Your task to perform on an android device: turn vacation reply on in the gmail app Image 0: 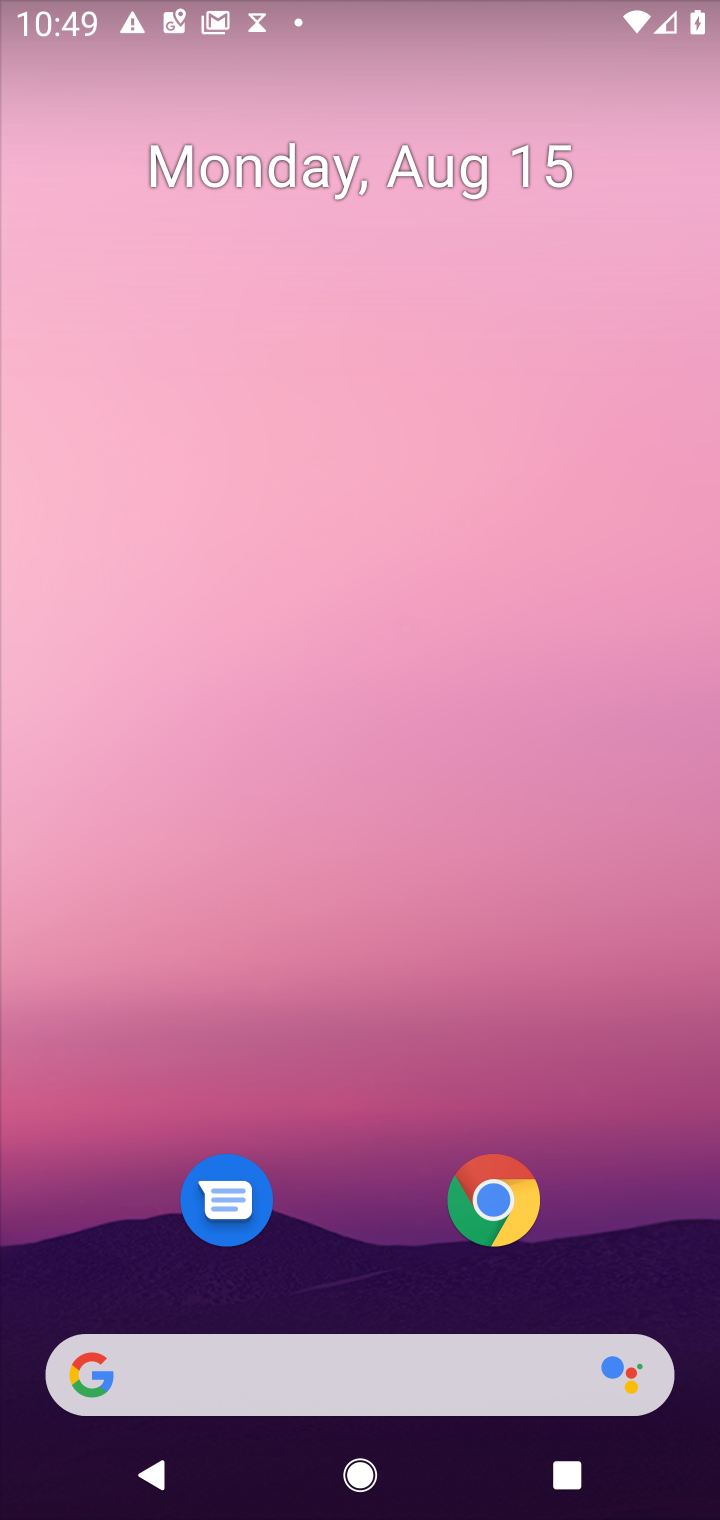
Step 0: drag from (364, 978) to (367, 213)
Your task to perform on an android device: turn vacation reply on in the gmail app Image 1: 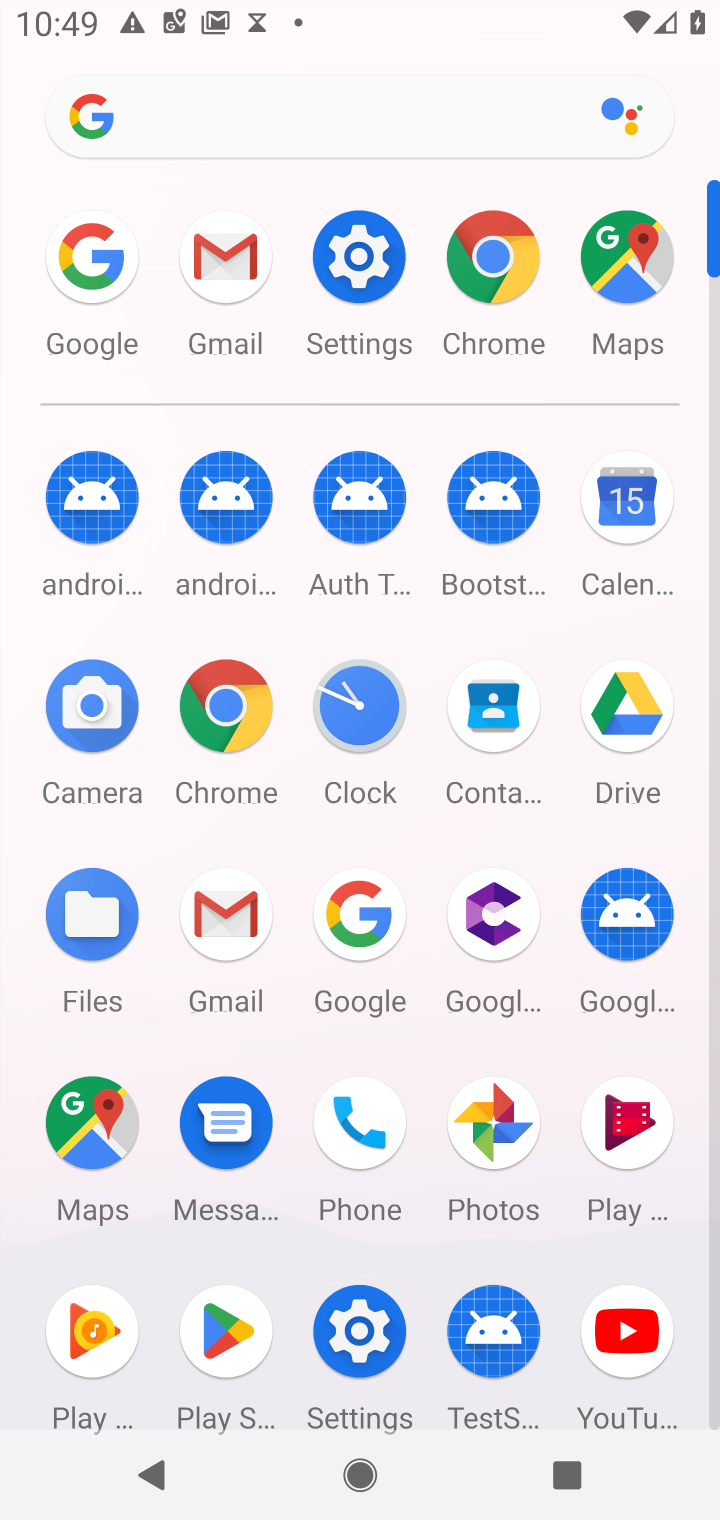
Step 1: click (255, 234)
Your task to perform on an android device: turn vacation reply on in the gmail app Image 2: 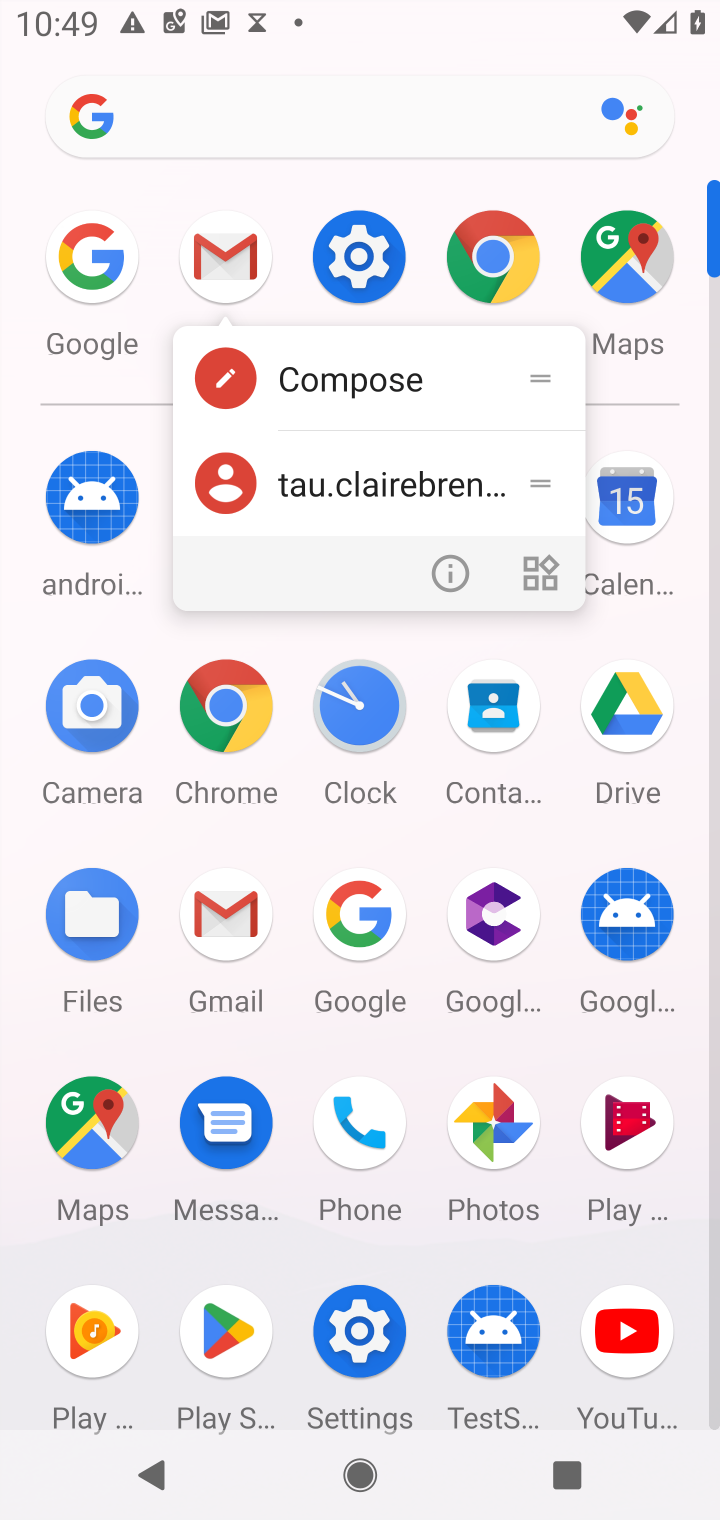
Step 2: click (206, 288)
Your task to perform on an android device: turn vacation reply on in the gmail app Image 3: 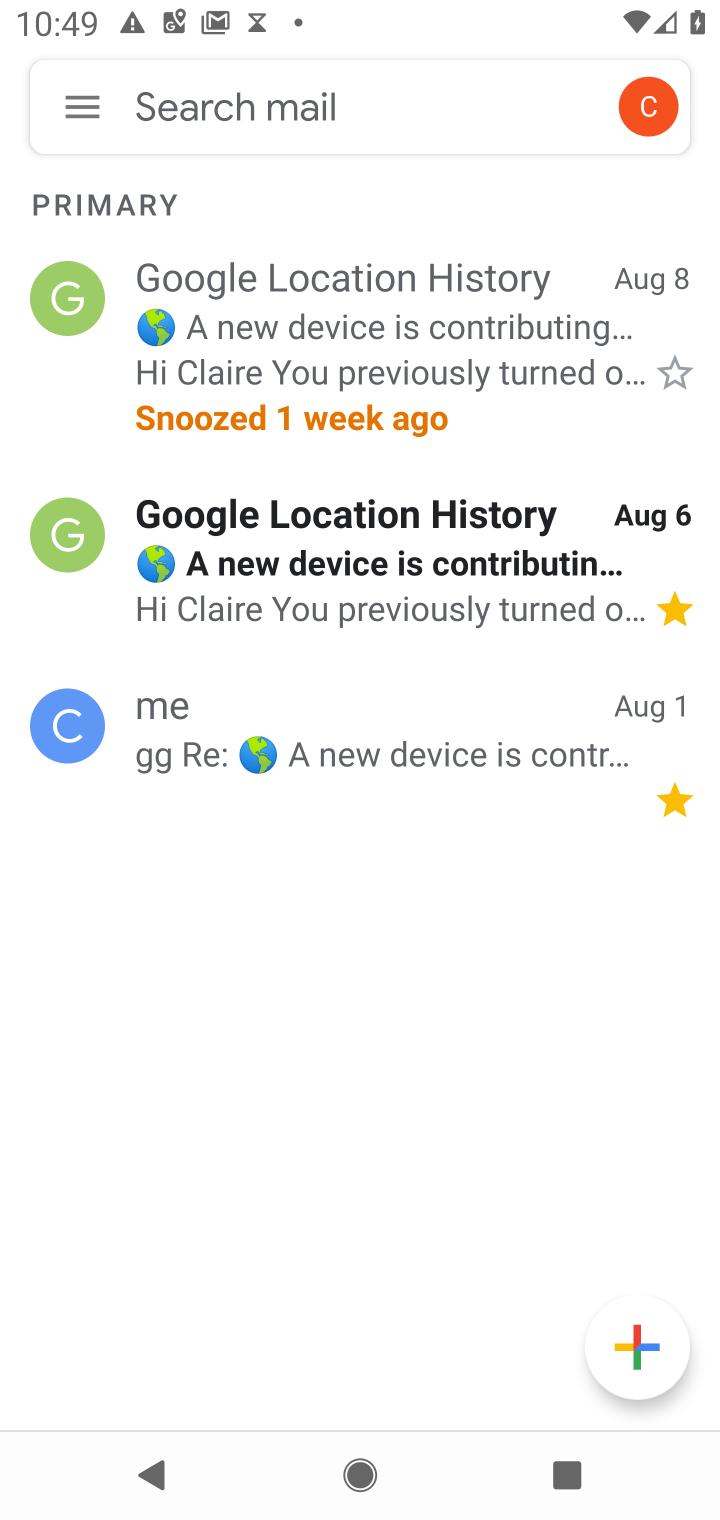
Step 3: click (97, 110)
Your task to perform on an android device: turn vacation reply on in the gmail app Image 4: 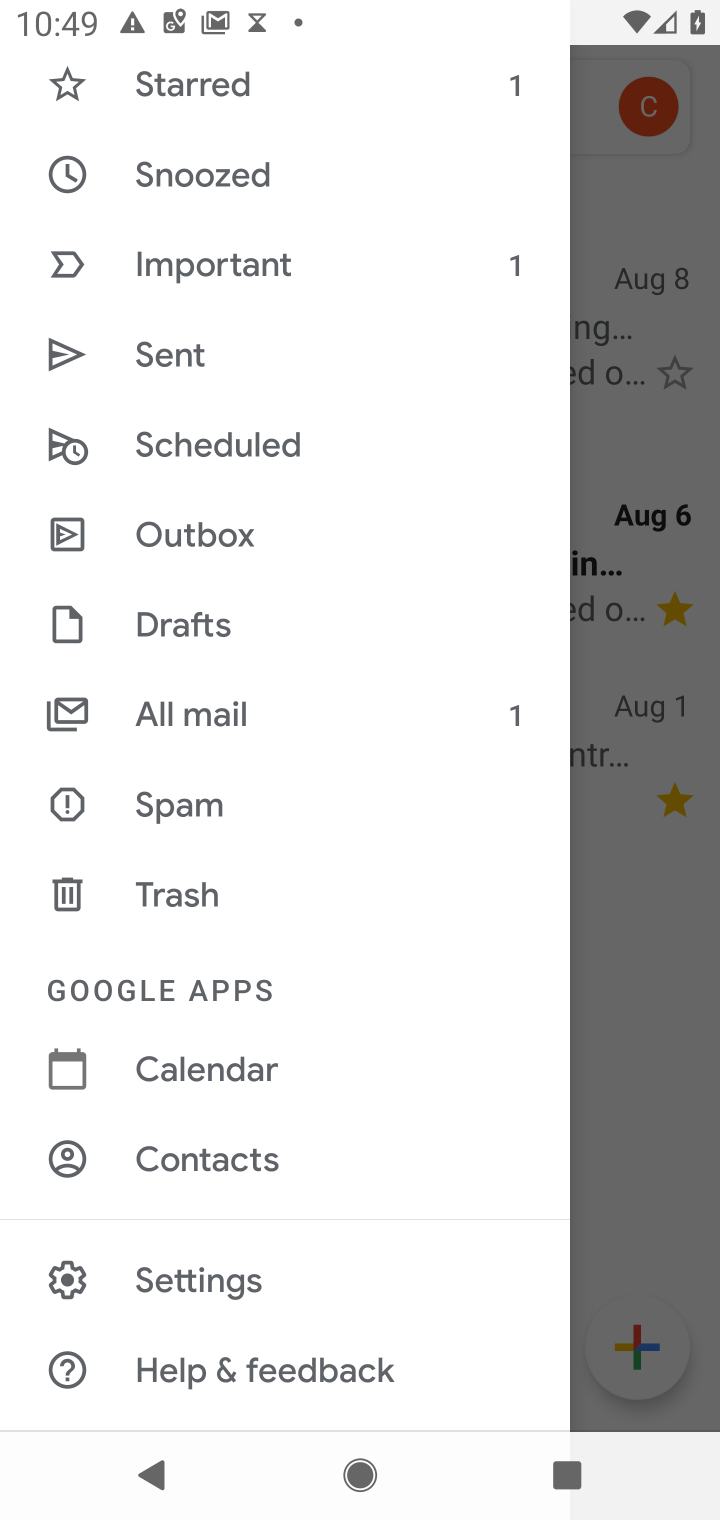
Step 4: click (233, 1273)
Your task to perform on an android device: turn vacation reply on in the gmail app Image 5: 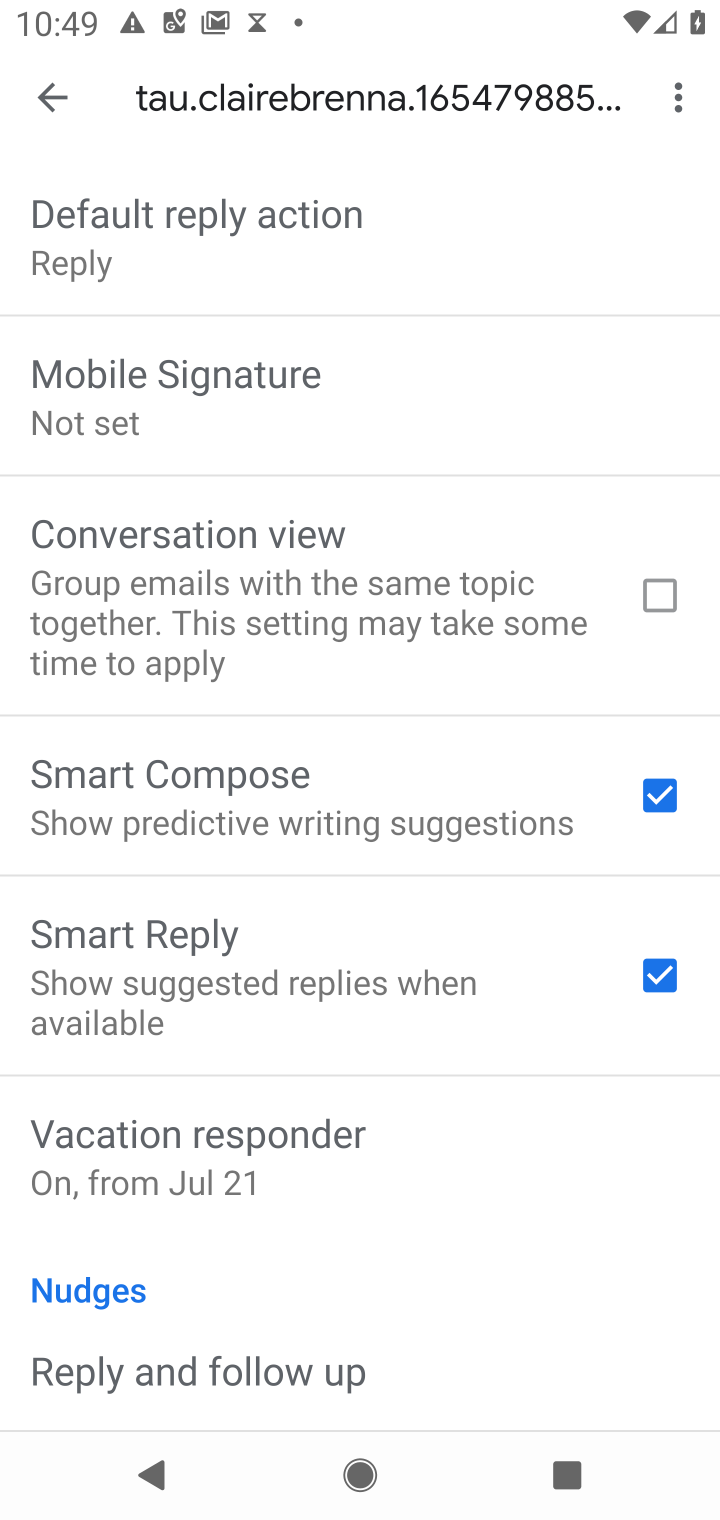
Step 5: click (255, 1128)
Your task to perform on an android device: turn vacation reply on in the gmail app Image 6: 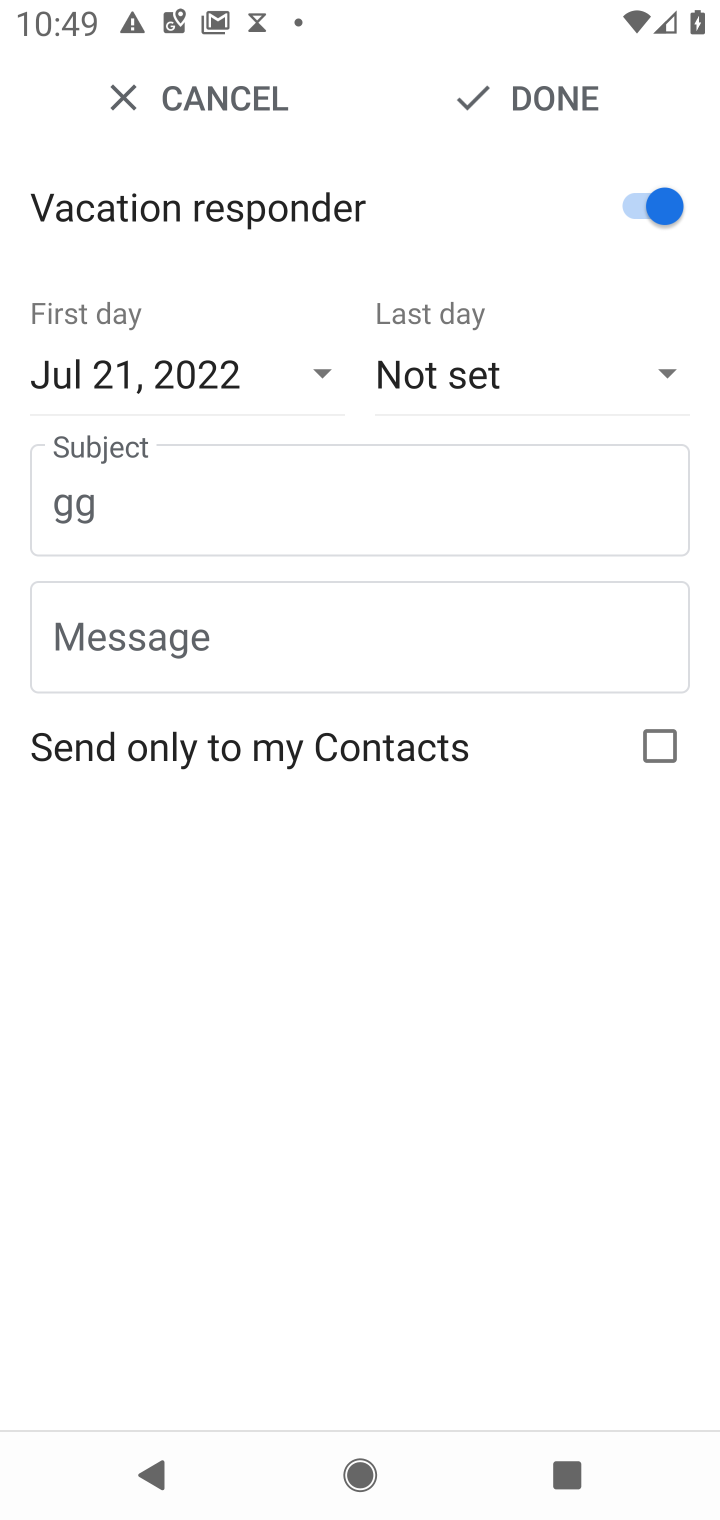
Step 6: task complete